Your task to perform on an android device: Search for razer thresher on newegg, select the first entry, add it to the cart, then select checkout. Image 0: 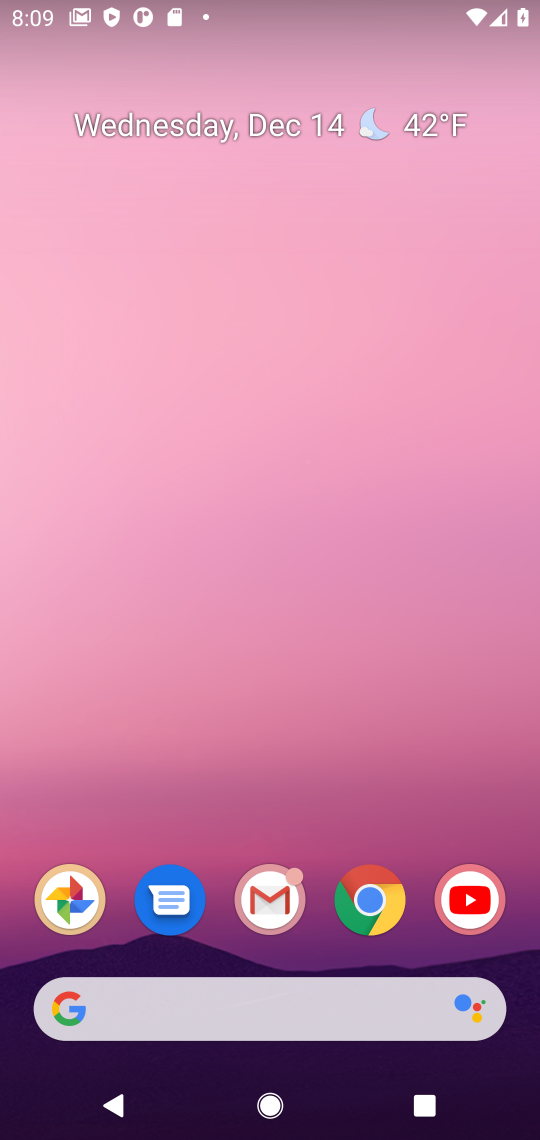
Step 0: click (367, 915)
Your task to perform on an android device: Search for razer thresher on newegg, select the first entry, add it to the cart, then select checkout. Image 1: 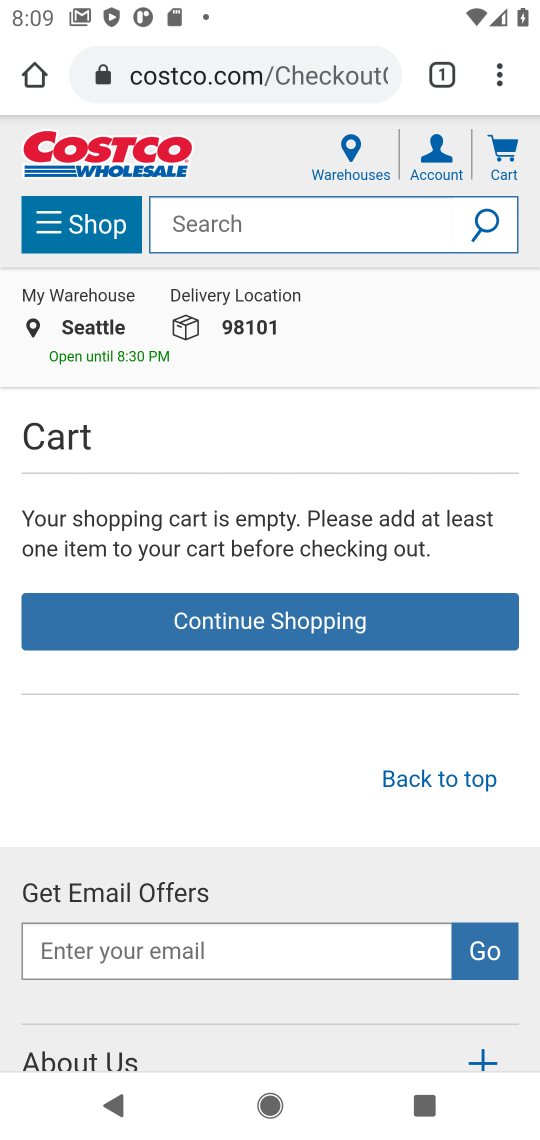
Step 1: click (231, 70)
Your task to perform on an android device: Search for razer thresher on newegg, select the first entry, add it to the cart, then select checkout. Image 2: 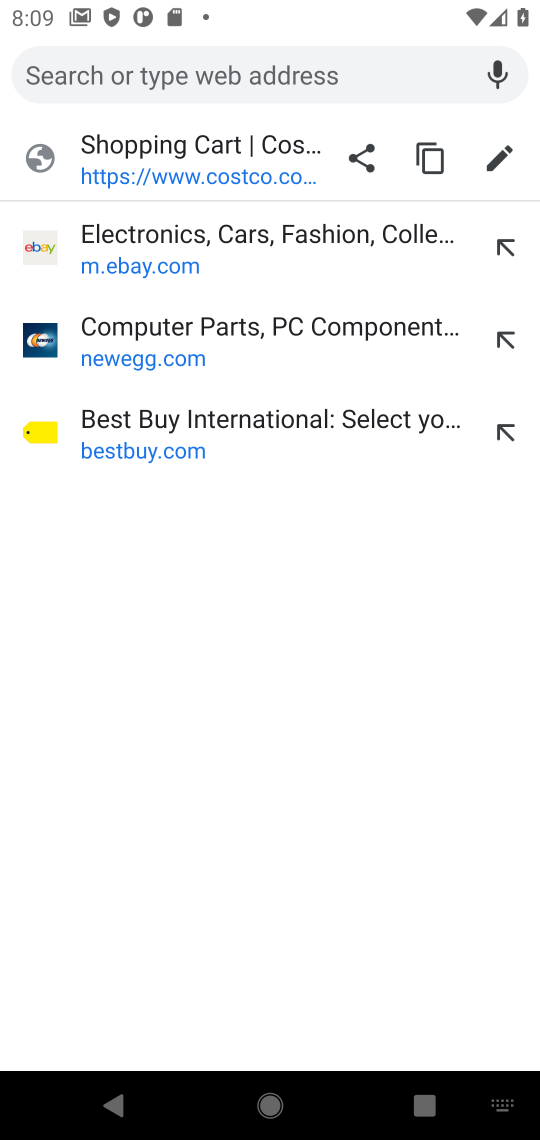
Step 2: click (119, 347)
Your task to perform on an android device: Search for razer thresher on newegg, select the first entry, add it to the cart, then select checkout. Image 3: 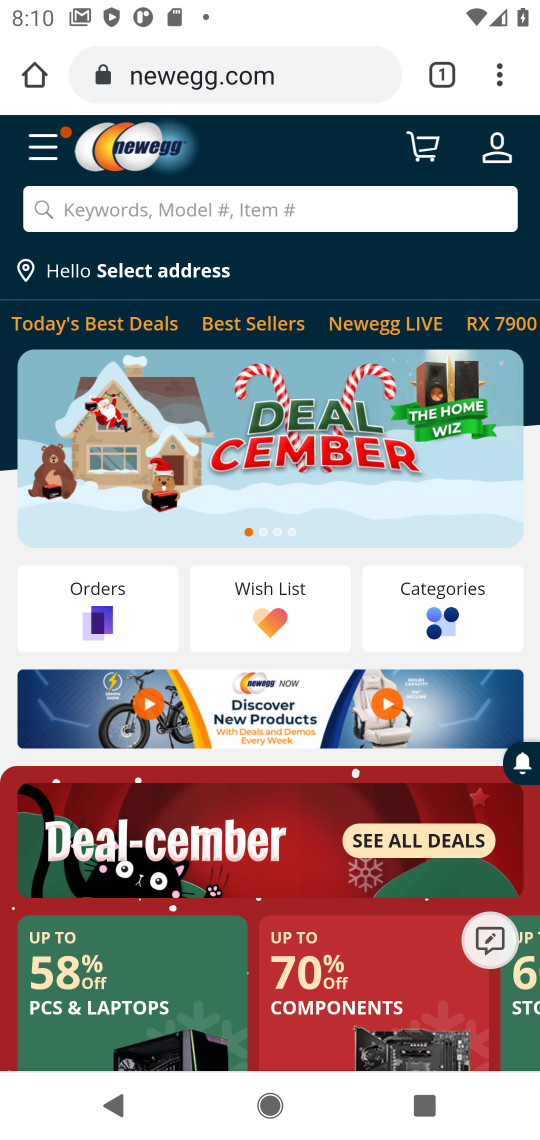
Step 3: click (86, 222)
Your task to perform on an android device: Search for razer thresher on newegg, select the first entry, add it to the cart, then select checkout. Image 4: 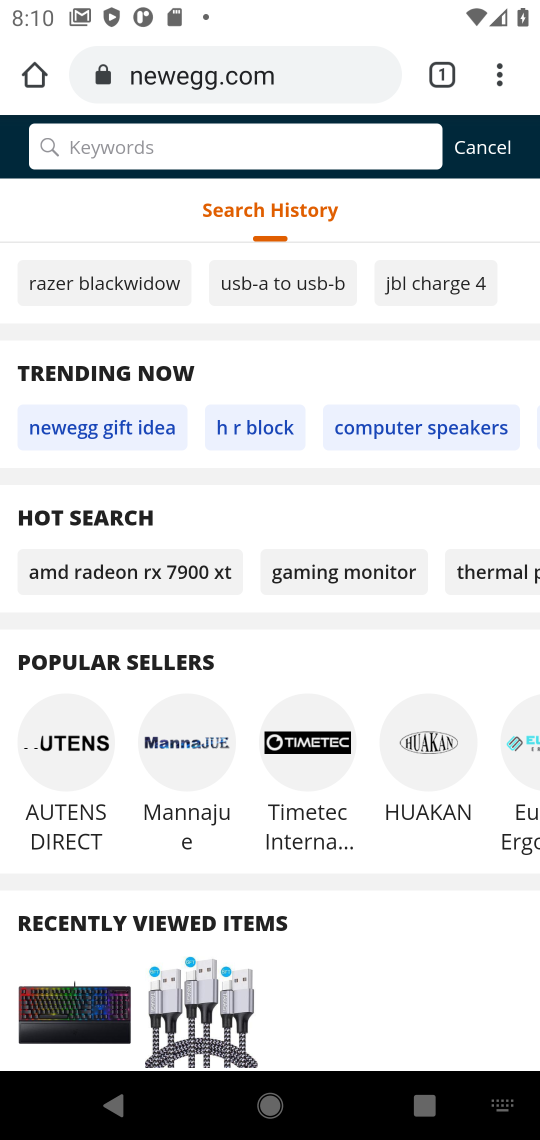
Step 4: type "razer thresher "
Your task to perform on an android device: Search for razer thresher on newegg, select the first entry, add it to the cart, then select checkout. Image 5: 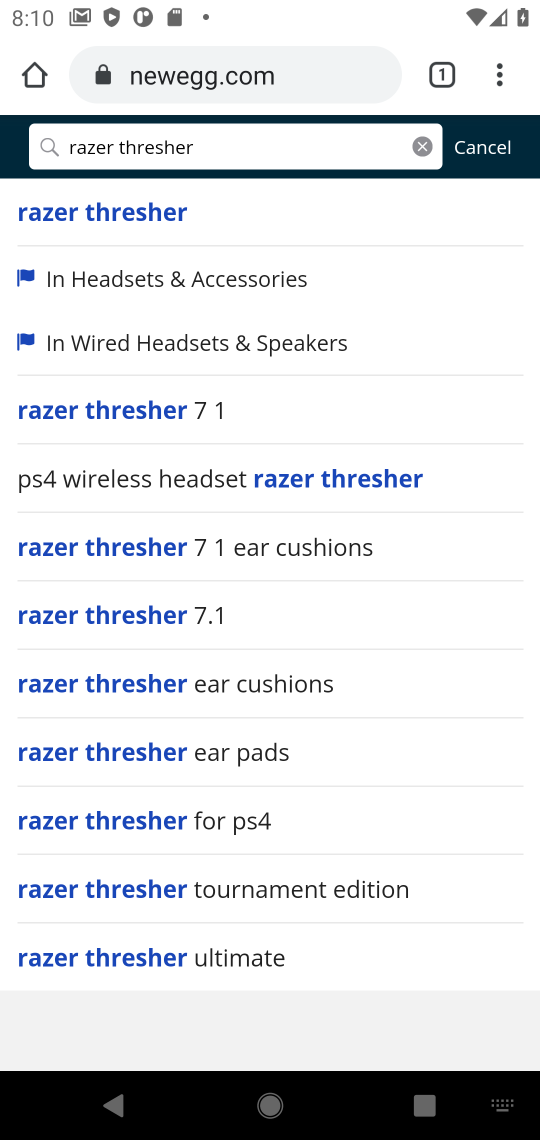
Step 5: click (130, 218)
Your task to perform on an android device: Search for razer thresher on newegg, select the first entry, add it to the cart, then select checkout. Image 6: 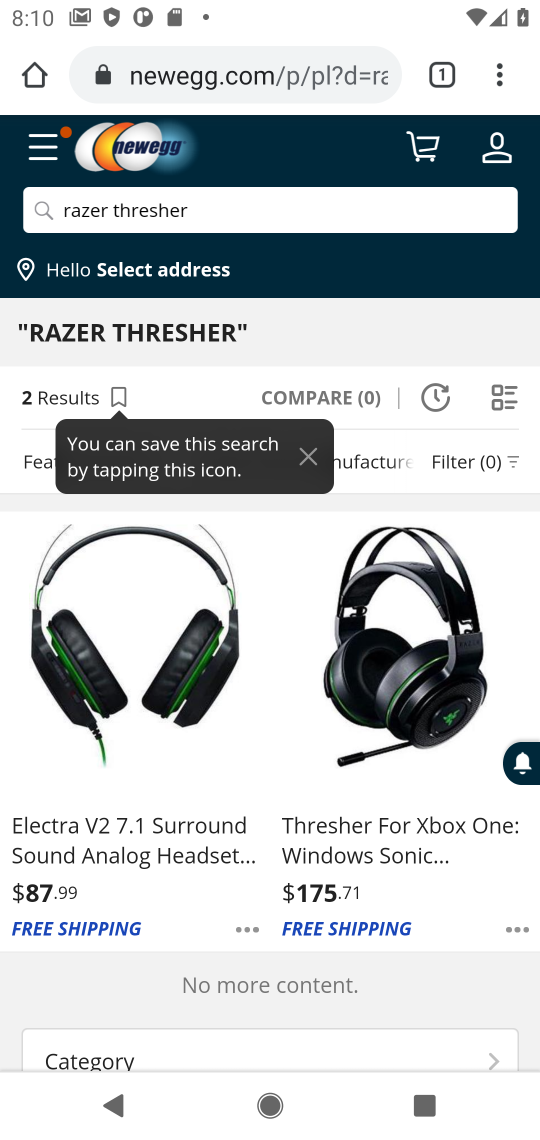
Step 6: click (116, 850)
Your task to perform on an android device: Search for razer thresher on newegg, select the first entry, add it to the cart, then select checkout. Image 7: 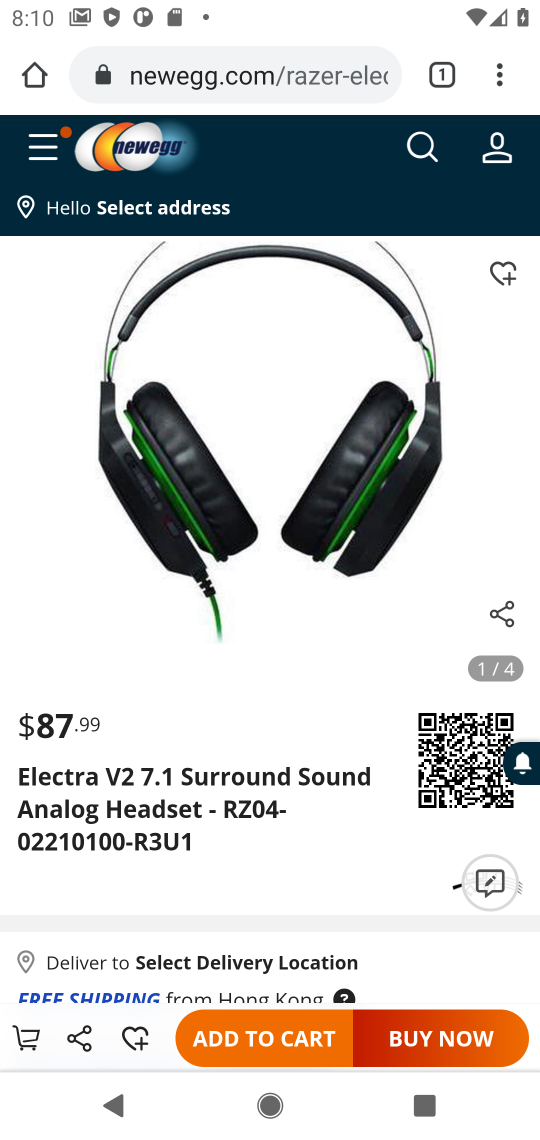
Step 7: task complete